Your task to perform on an android device: Open calendar and show me the first week of next month Image 0: 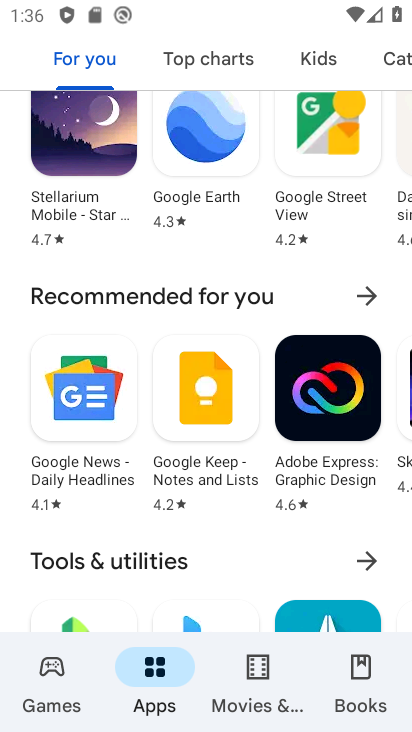
Step 0: press home button
Your task to perform on an android device: Open calendar and show me the first week of next month Image 1: 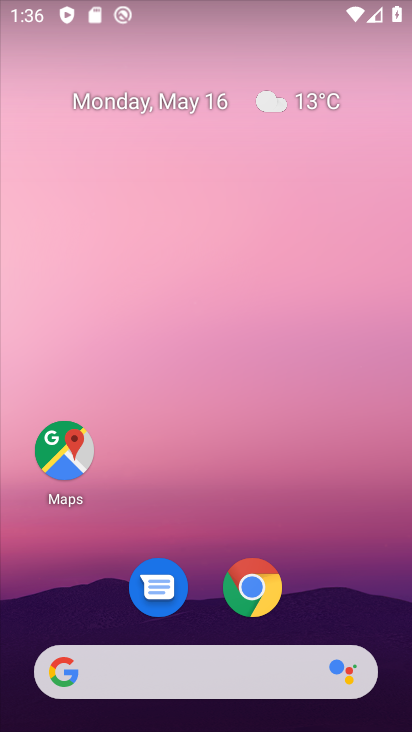
Step 1: drag from (187, 595) to (194, 396)
Your task to perform on an android device: Open calendar and show me the first week of next month Image 2: 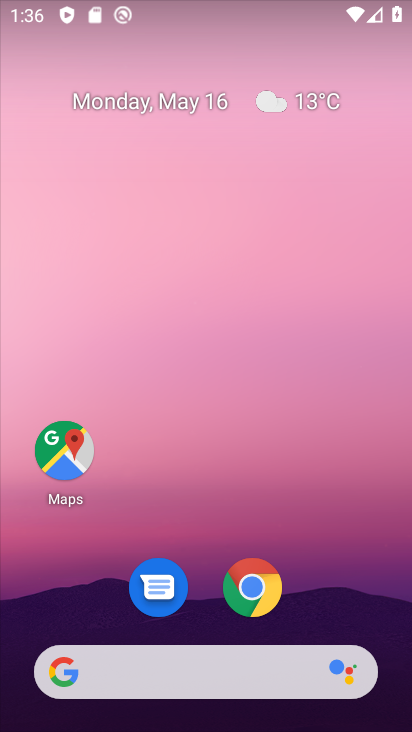
Step 2: drag from (242, 615) to (232, 290)
Your task to perform on an android device: Open calendar and show me the first week of next month Image 3: 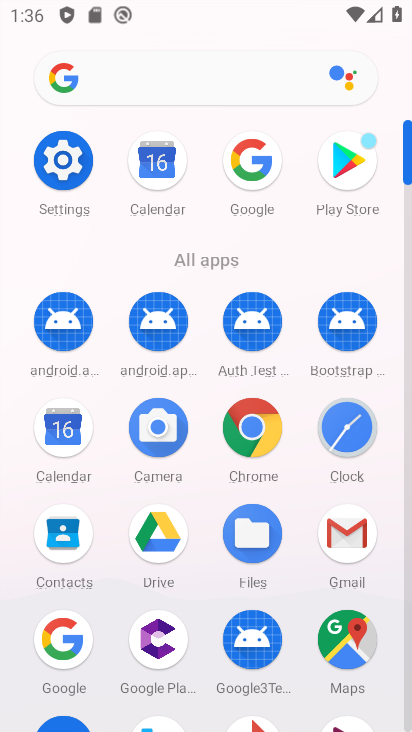
Step 3: click (70, 435)
Your task to perform on an android device: Open calendar and show me the first week of next month Image 4: 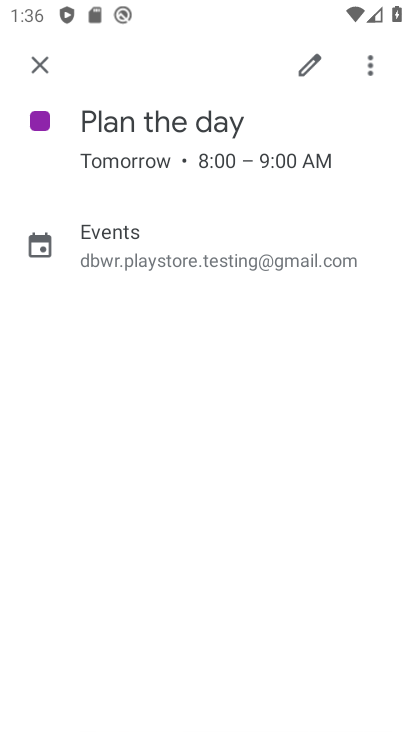
Step 4: click (41, 67)
Your task to perform on an android device: Open calendar and show me the first week of next month Image 5: 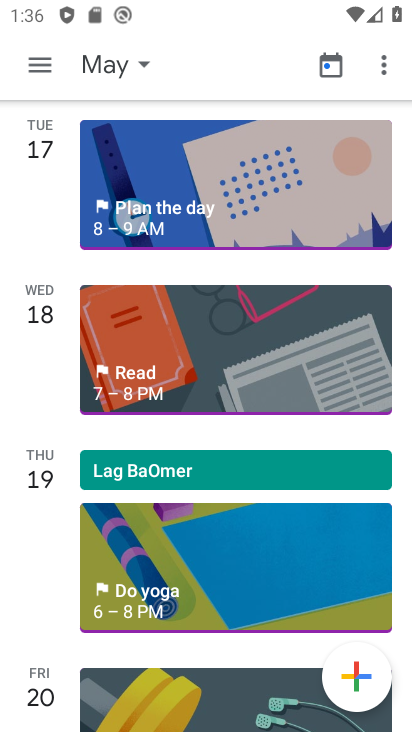
Step 5: click (113, 53)
Your task to perform on an android device: Open calendar and show me the first week of next month Image 6: 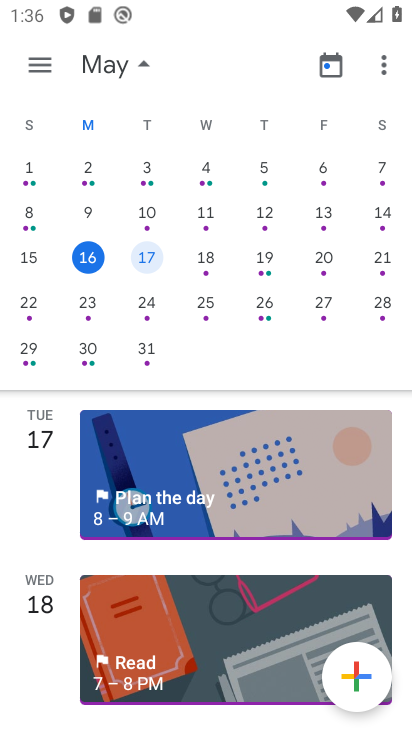
Step 6: drag from (351, 333) to (6, 349)
Your task to perform on an android device: Open calendar and show me the first week of next month Image 7: 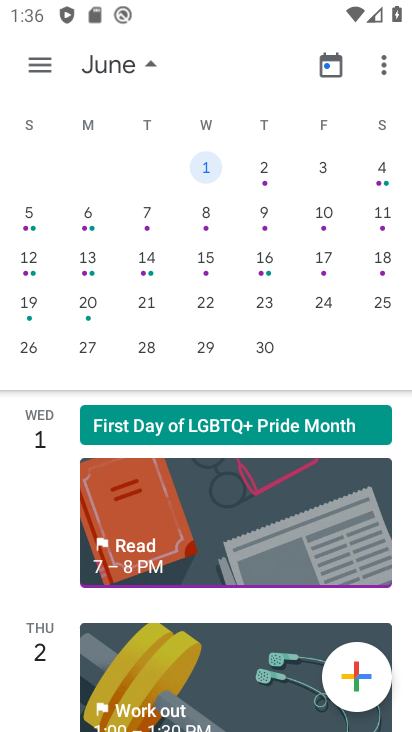
Step 7: click (214, 171)
Your task to perform on an android device: Open calendar and show me the first week of next month Image 8: 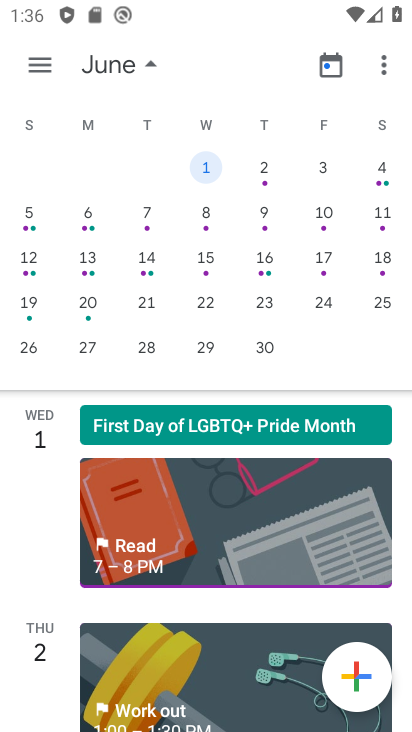
Step 8: task complete